Your task to perform on an android device: Open calendar and show me the third week of next month Image 0: 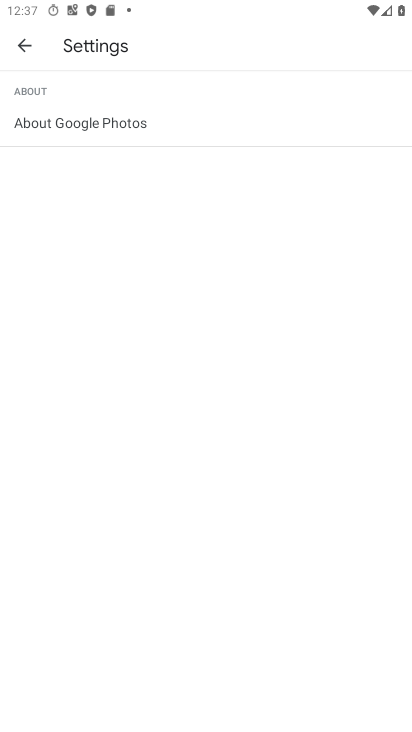
Step 0: press home button
Your task to perform on an android device: Open calendar and show me the third week of next month Image 1: 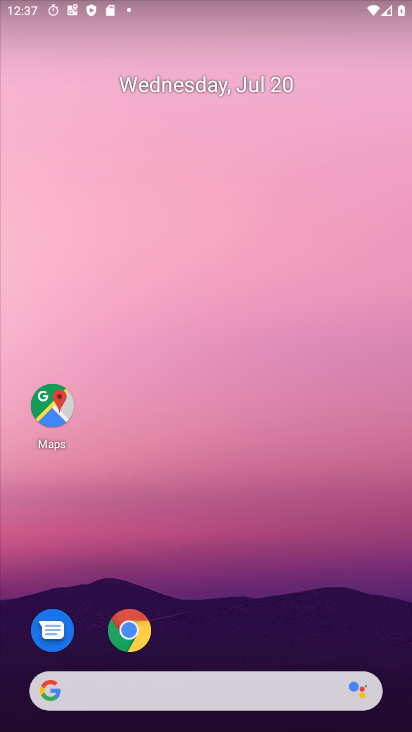
Step 1: drag from (228, 661) to (257, 85)
Your task to perform on an android device: Open calendar and show me the third week of next month Image 2: 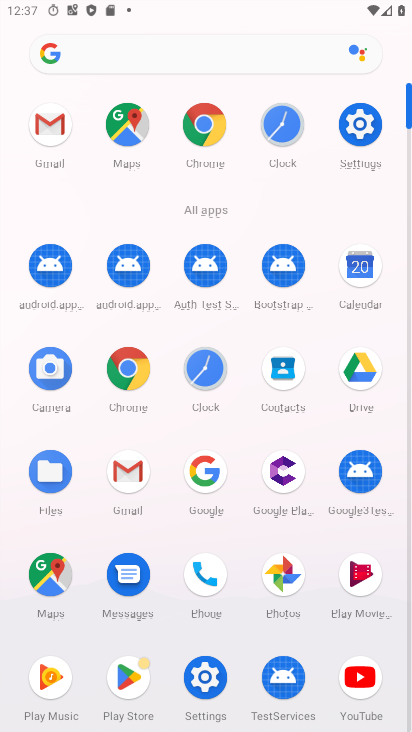
Step 2: click (360, 257)
Your task to perform on an android device: Open calendar and show me the third week of next month Image 3: 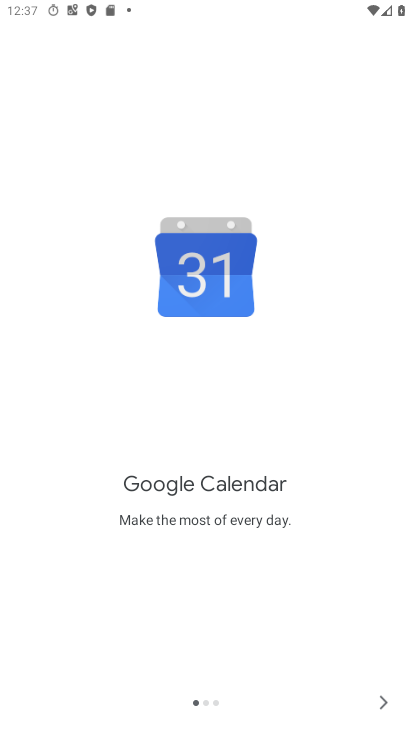
Step 3: click (377, 693)
Your task to perform on an android device: Open calendar and show me the third week of next month Image 4: 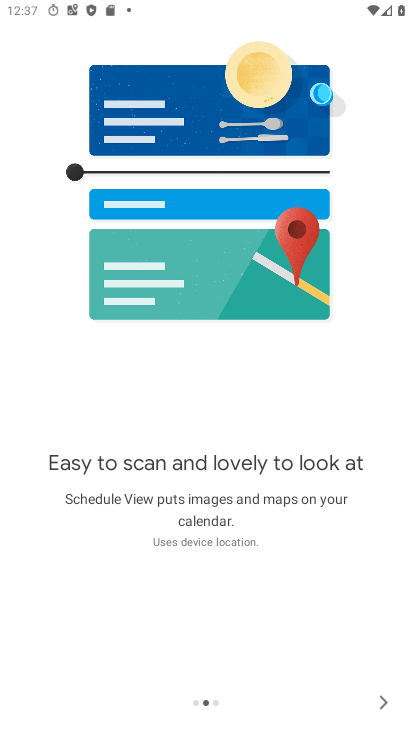
Step 4: click (377, 693)
Your task to perform on an android device: Open calendar and show me the third week of next month Image 5: 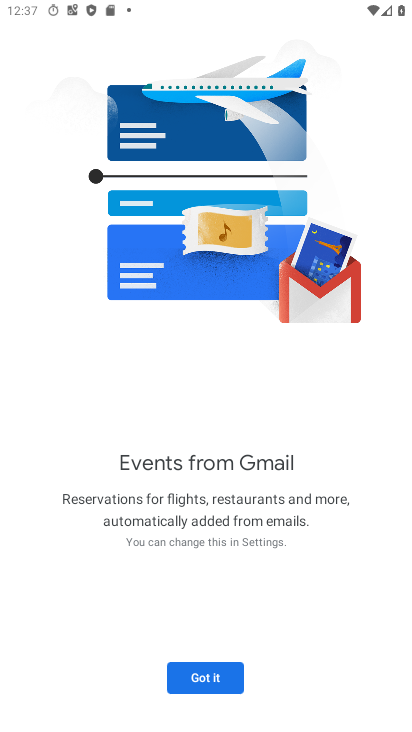
Step 5: click (192, 683)
Your task to perform on an android device: Open calendar and show me the third week of next month Image 6: 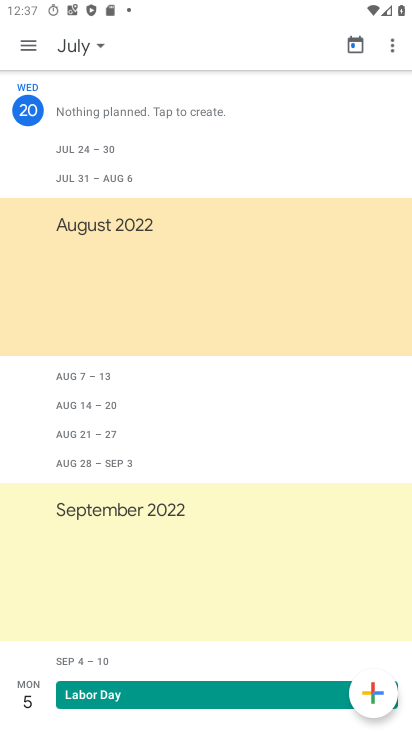
Step 6: click (77, 52)
Your task to perform on an android device: Open calendar and show me the third week of next month Image 7: 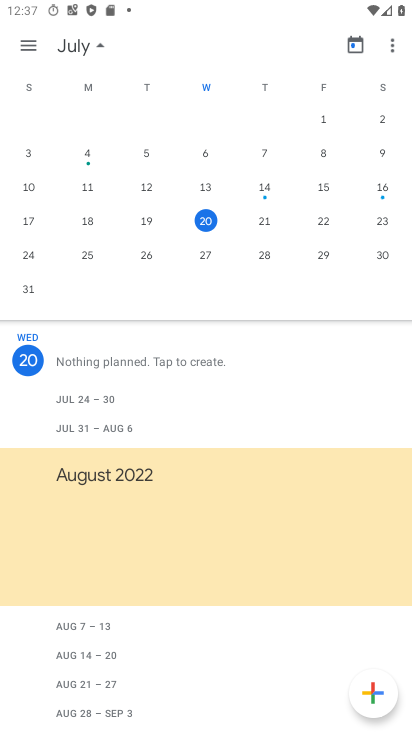
Step 7: drag from (381, 232) to (30, 237)
Your task to perform on an android device: Open calendar and show me the third week of next month Image 8: 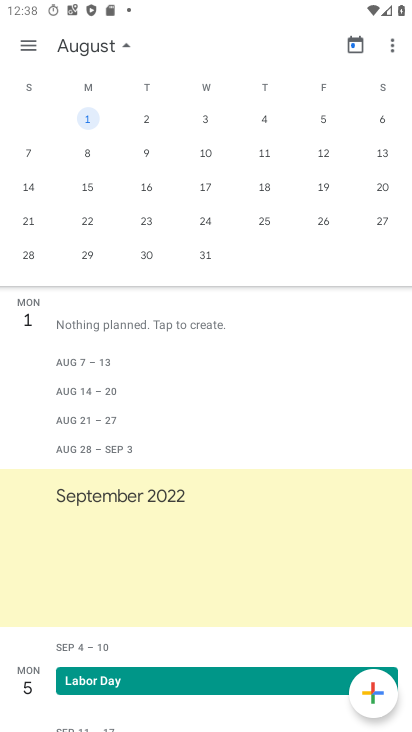
Step 8: click (24, 192)
Your task to perform on an android device: Open calendar and show me the third week of next month Image 9: 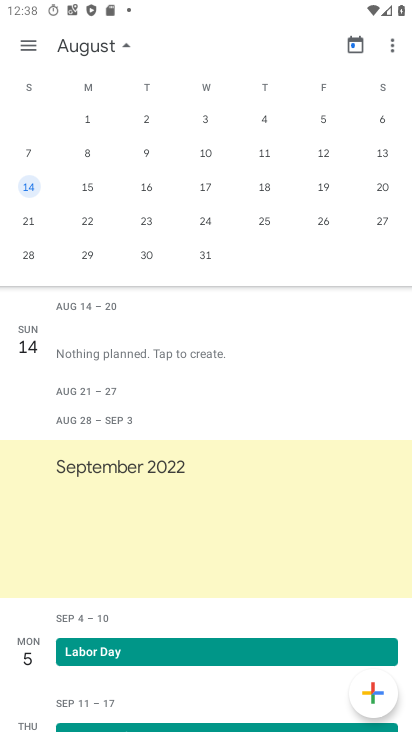
Step 9: task complete